Your task to perform on an android device: toggle airplane mode Image 0: 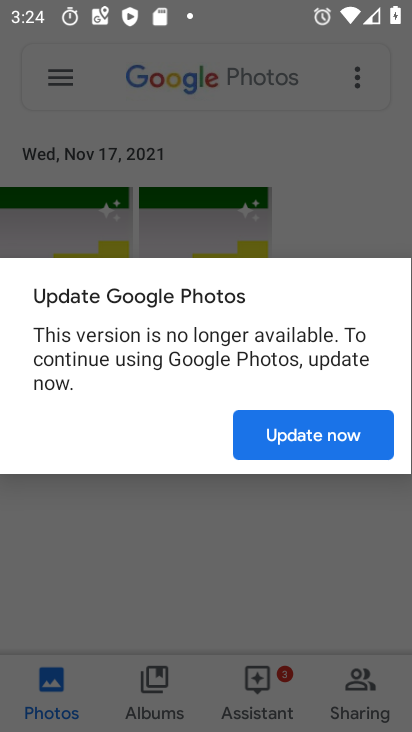
Step 0: press home button
Your task to perform on an android device: toggle airplane mode Image 1: 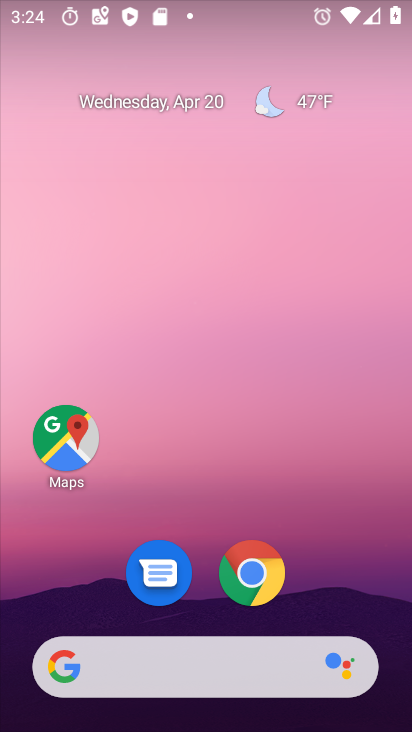
Step 1: drag from (210, 727) to (176, 56)
Your task to perform on an android device: toggle airplane mode Image 2: 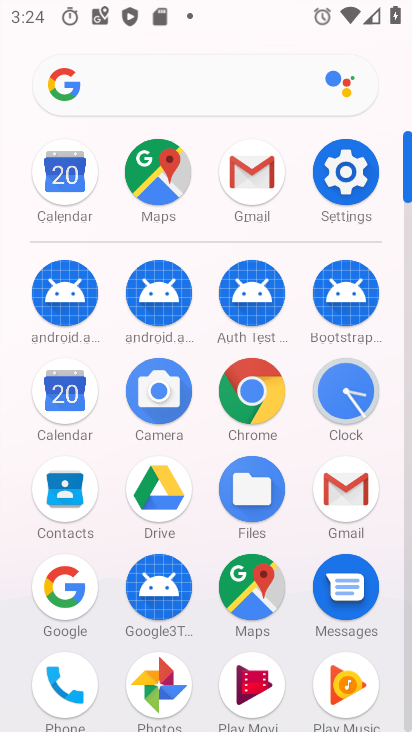
Step 2: click (353, 175)
Your task to perform on an android device: toggle airplane mode Image 3: 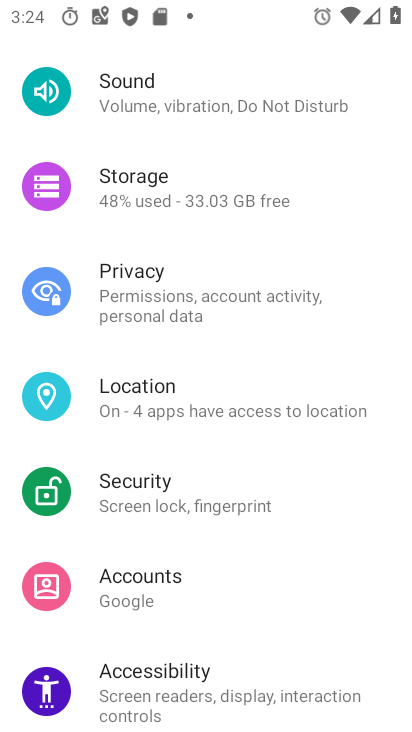
Step 3: drag from (190, 152) to (171, 531)
Your task to perform on an android device: toggle airplane mode Image 4: 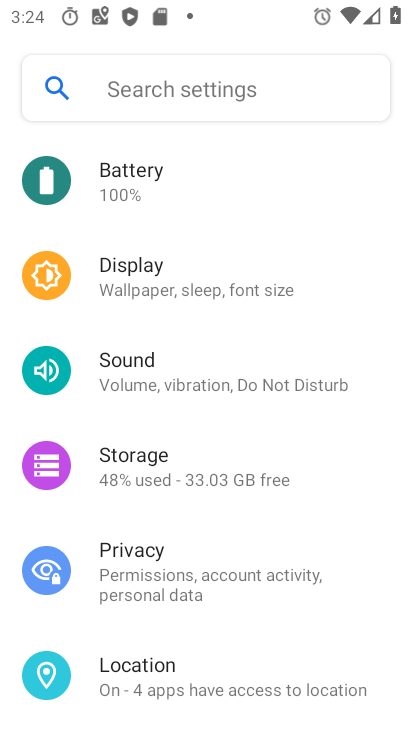
Step 4: drag from (176, 176) to (176, 563)
Your task to perform on an android device: toggle airplane mode Image 5: 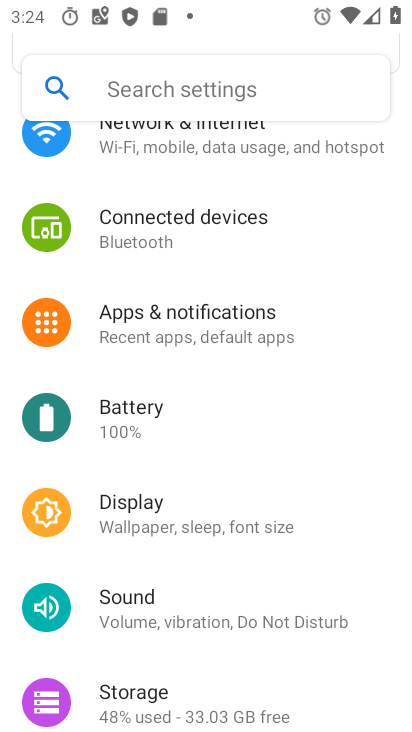
Step 5: drag from (182, 209) to (164, 600)
Your task to perform on an android device: toggle airplane mode Image 6: 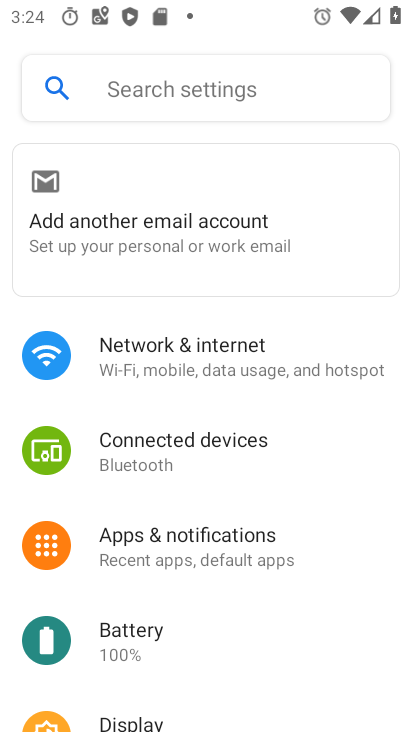
Step 6: drag from (199, 632) to (199, 428)
Your task to perform on an android device: toggle airplane mode Image 7: 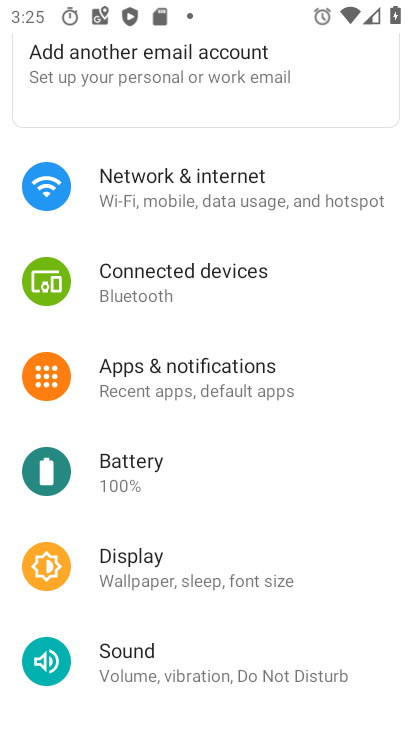
Step 7: click (155, 186)
Your task to perform on an android device: toggle airplane mode Image 8: 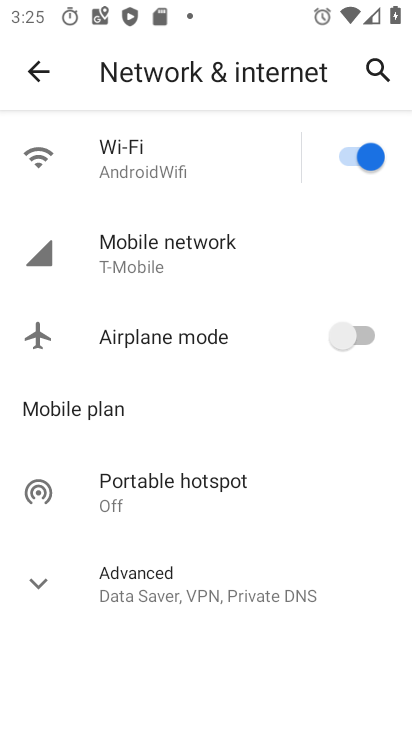
Step 8: click (360, 336)
Your task to perform on an android device: toggle airplane mode Image 9: 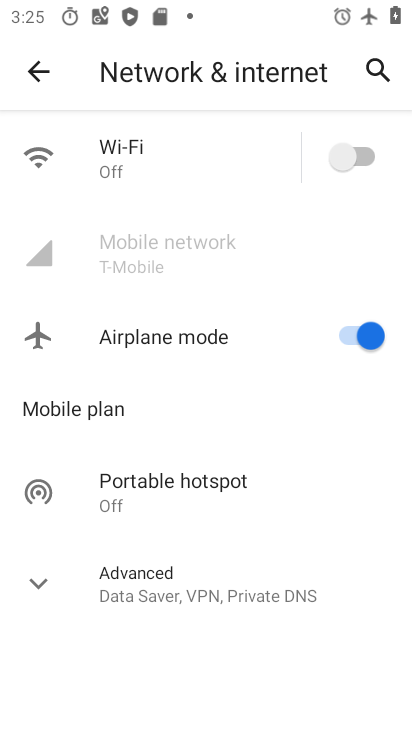
Step 9: task complete